Your task to perform on an android device: toggle notifications settings in the gmail app Image 0: 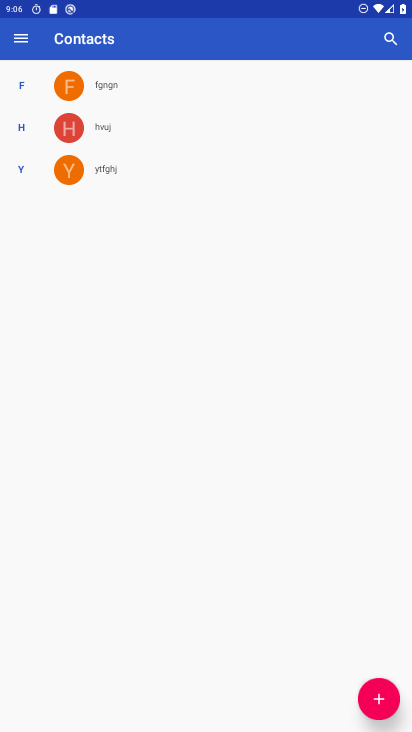
Step 0: press home button
Your task to perform on an android device: toggle notifications settings in the gmail app Image 1: 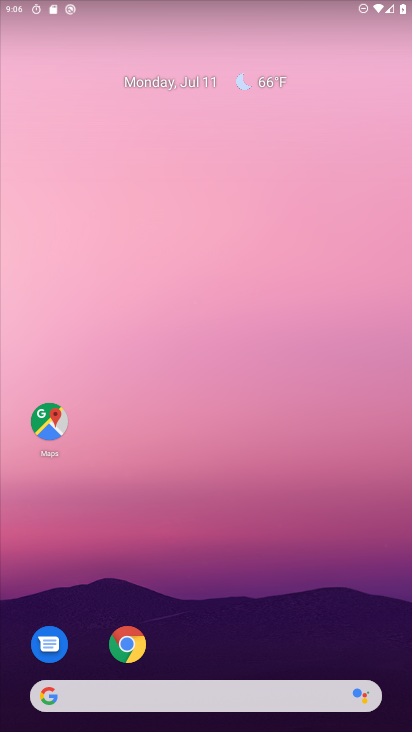
Step 1: drag from (308, 624) to (279, 176)
Your task to perform on an android device: toggle notifications settings in the gmail app Image 2: 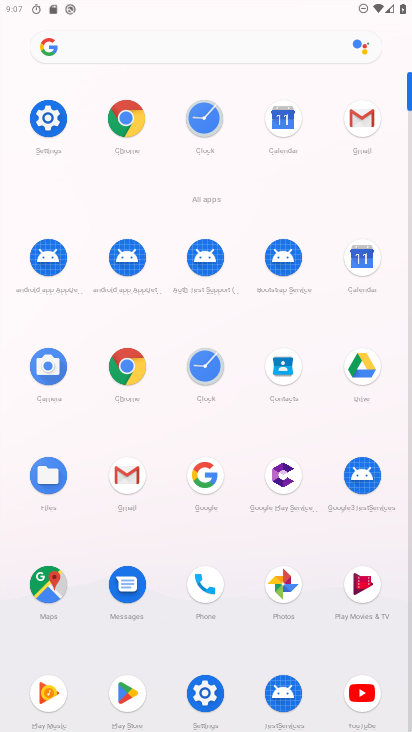
Step 2: click (362, 120)
Your task to perform on an android device: toggle notifications settings in the gmail app Image 3: 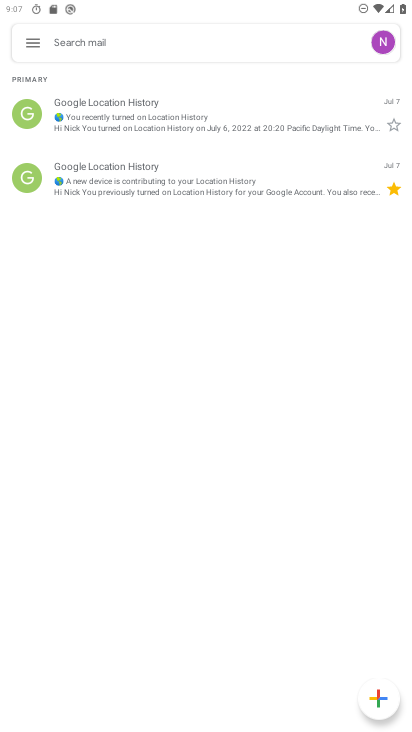
Step 3: click (40, 43)
Your task to perform on an android device: toggle notifications settings in the gmail app Image 4: 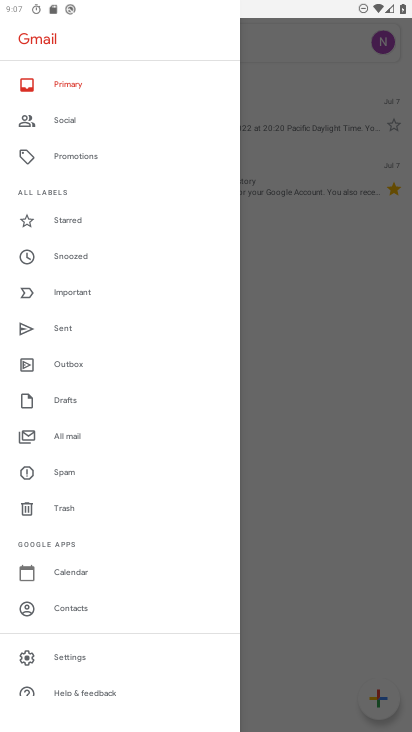
Step 4: click (89, 662)
Your task to perform on an android device: toggle notifications settings in the gmail app Image 5: 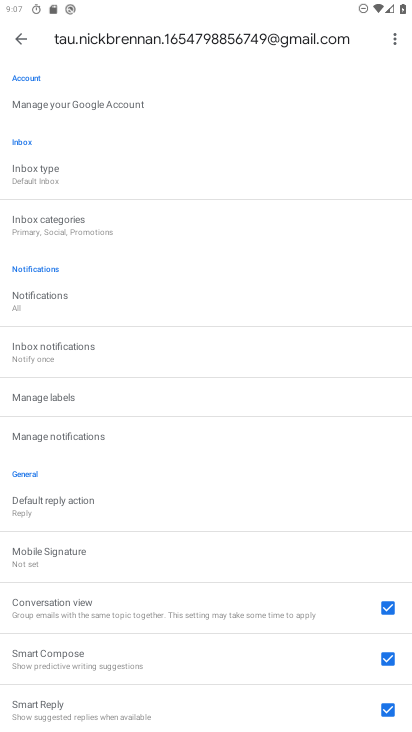
Step 5: click (80, 434)
Your task to perform on an android device: toggle notifications settings in the gmail app Image 6: 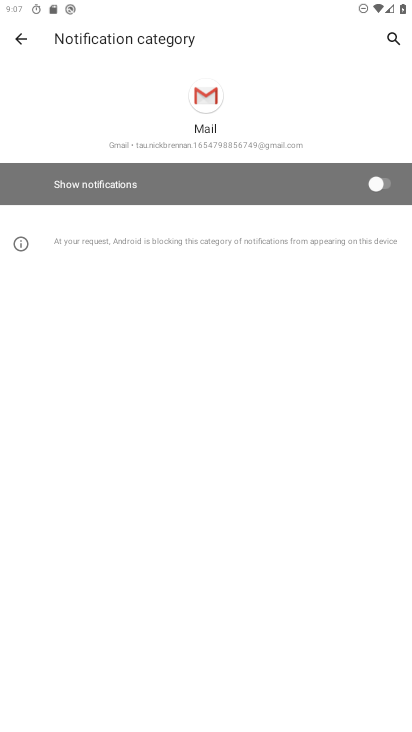
Step 6: click (379, 183)
Your task to perform on an android device: toggle notifications settings in the gmail app Image 7: 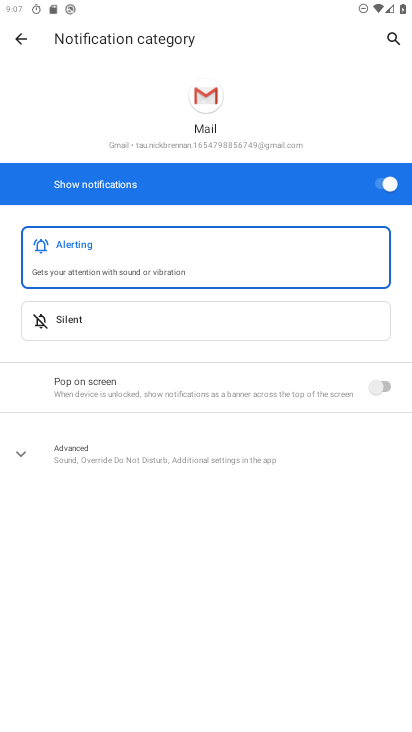
Step 7: task complete